Your task to perform on an android device: Do I have any events this weekend? Image 0: 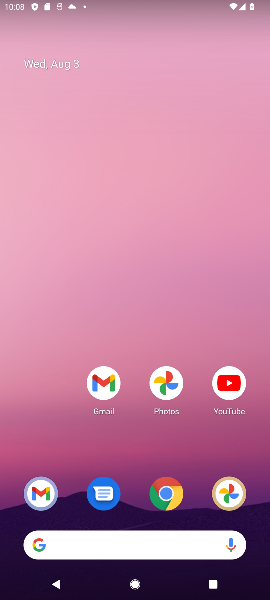
Step 0: press home button
Your task to perform on an android device: Do I have any events this weekend? Image 1: 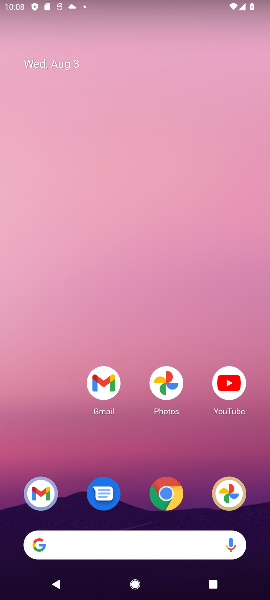
Step 1: drag from (131, 463) to (153, 1)
Your task to perform on an android device: Do I have any events this weekend? Image 2: 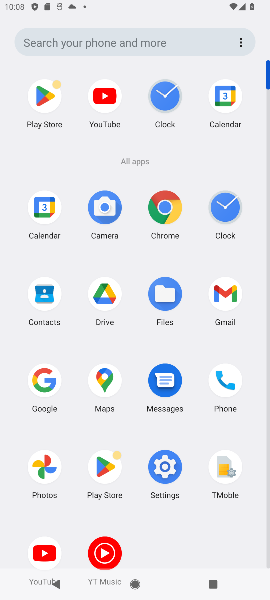
Step 2: click (41, 200)
Your task to perform on an android device: Do I have any events this weekend? Image 3: 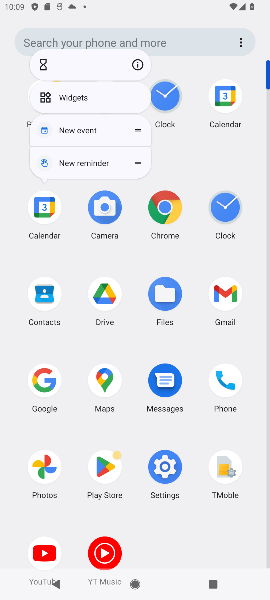
Step 3: click (41, 200)
Your task to perform on an android device: Do I have any events this weekend? Image 4: 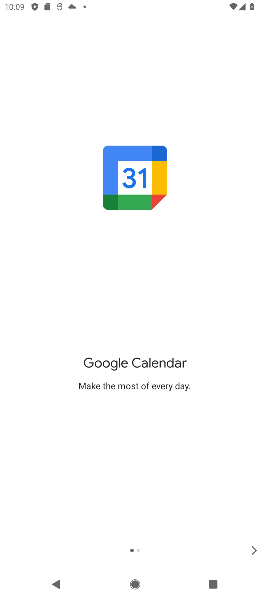
Step 4: click (255, 548)
Your task to perform on an android device: Do I have any events this weekend? Image 5: 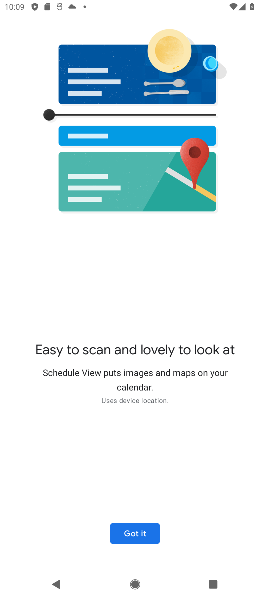
Step 5: click (138, 529)
Your task to perform on an android device: Do I have any events this weekend? Image 6: 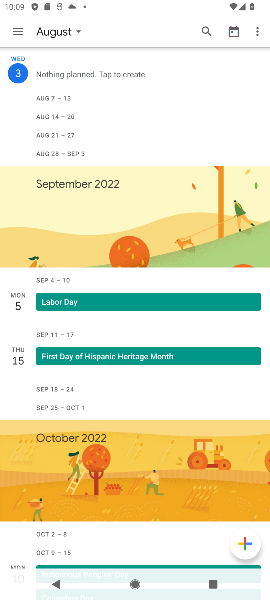
Step 6: click (74, 28)
Your task to perform on an android device: Do I have any events this weekend? Image 7: 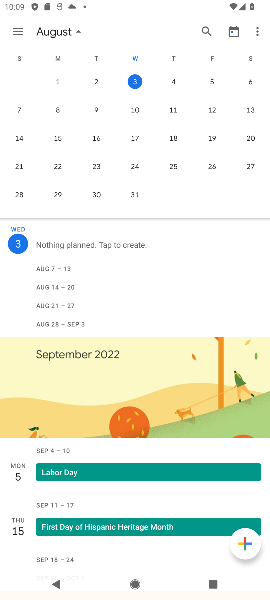
Step 7: click (18, 26)
Your task to perform on an android device: Do I have any events this weekend? Image 8: 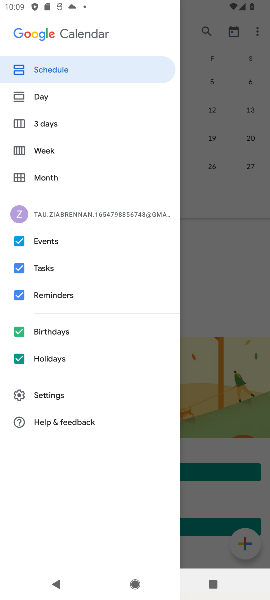
Step 8: click (13, 266)
Your task to perform on an android device: Do I have any events this weekend? Image 9: 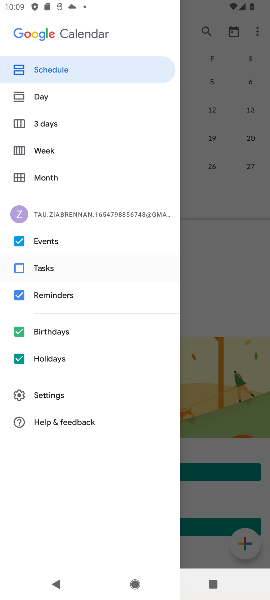
Step 9: click (13, 292)
Your task to perform on an android device: Do I have any events this weekend? Image 10: 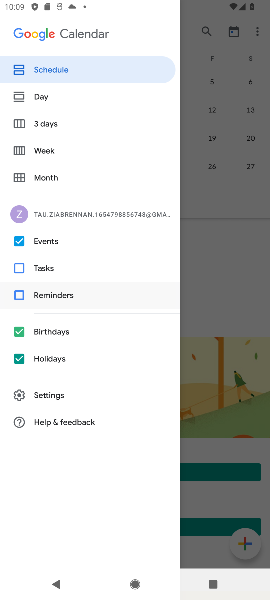
Step 10: click (20, 329)
Your task to perform on an android device: Do I have any events this weekend? Image 11: 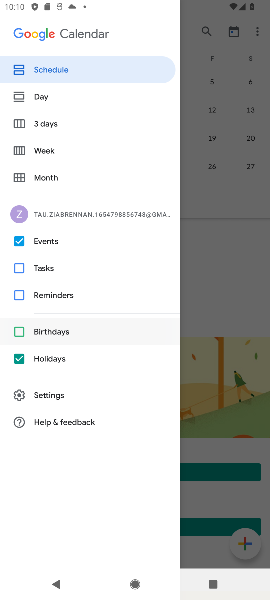
Step 11: click (23, 354)
Your task to perform on an android device: Do I have any events this weekend? Image 12: 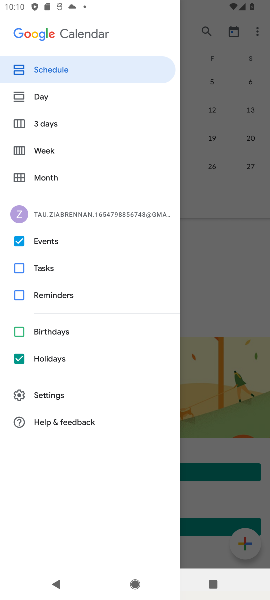
Step 12: click (30, 145)
Your task to perform on an android device: Do I have any events this weekend? Image 13: 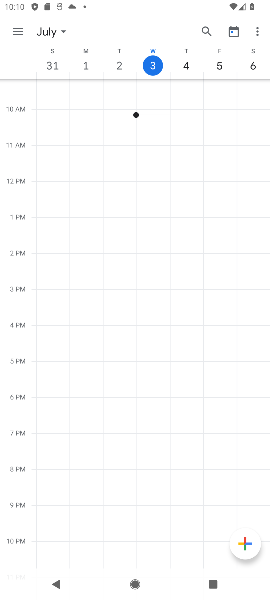
Step 13: task complete